Your task to perform on an android device: see creations saved in the google photos Image 0: 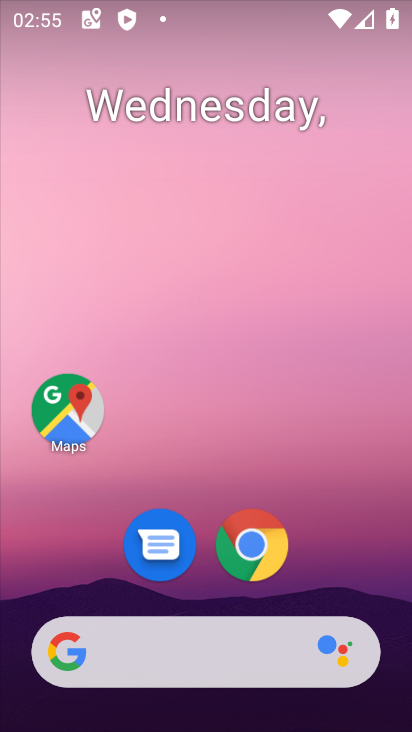
Step 0: press home button
Your task to perform on an android device: see creations saved in the google photos Image 1: 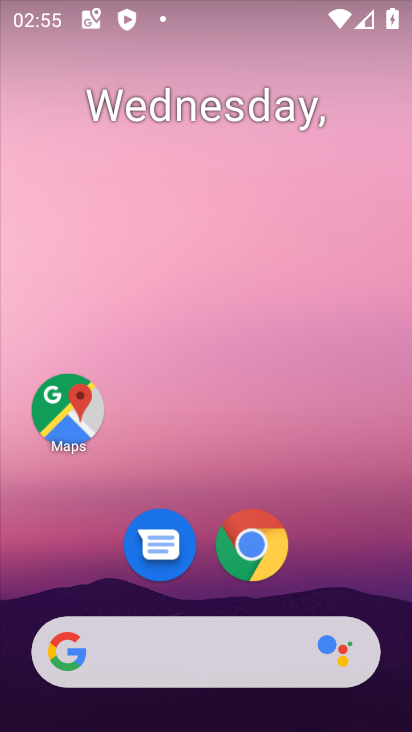
Step 1: drag from (190, 654) to (330, 127)
Your task to perform on an android device: see creations saved in the google photos Image 2: 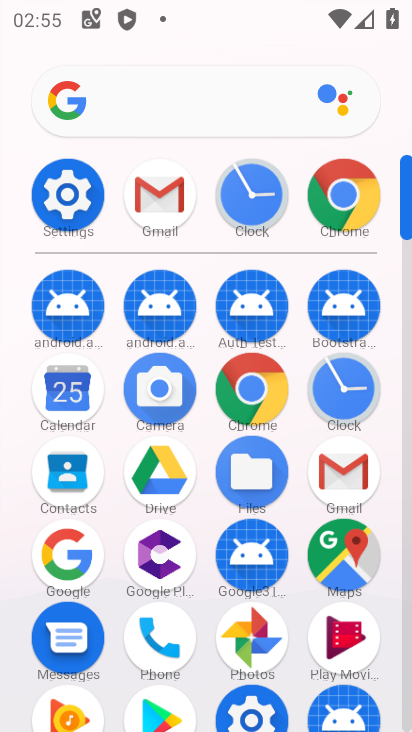
Step 2: drag from (209, 585) to (291, 310)
Your task to perform on an android device: see creations saved in the google photos Image 3: 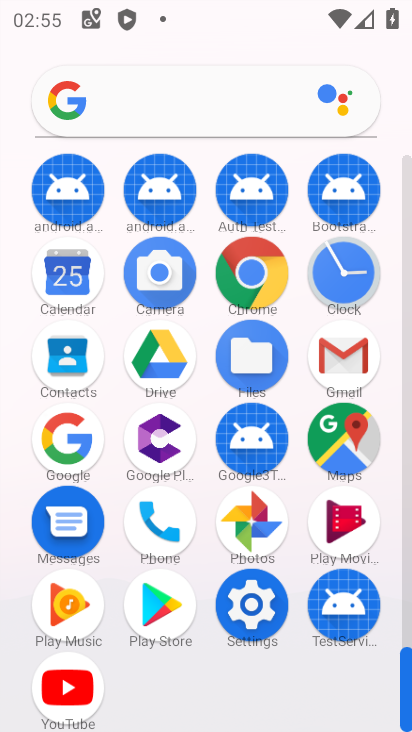
Step 3: click (251, 533)
Your task to perform on an android device: see creations saved in the google photos Image 4: 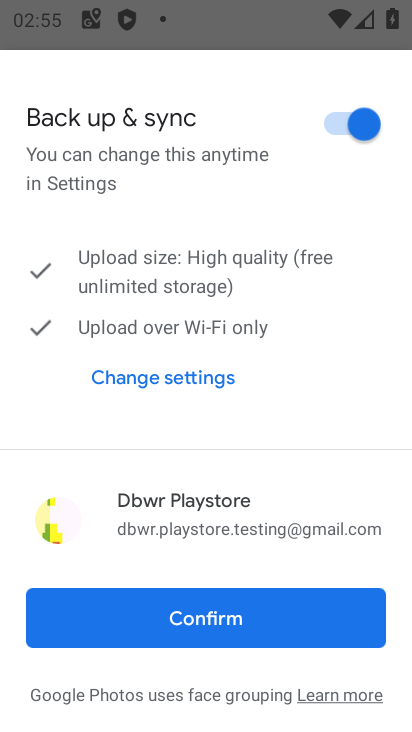
Step 4: click (197, 617)
Your task to perform on an android device: see creations saved in the google photos Image 5: 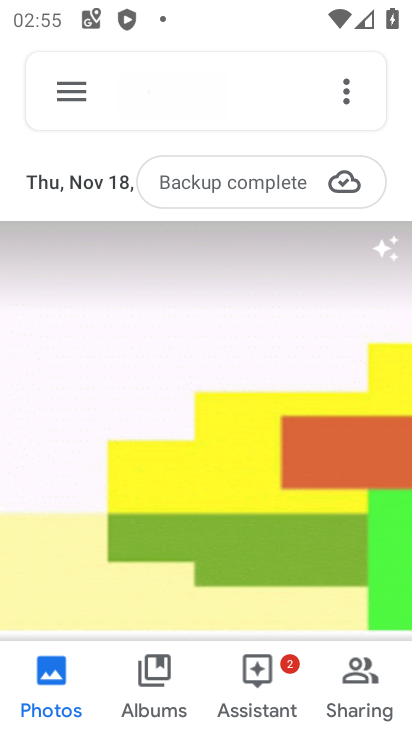
Step 5: click (164, 693)
Your task to perform on an android device: see creations saved in the google photos Image 6: 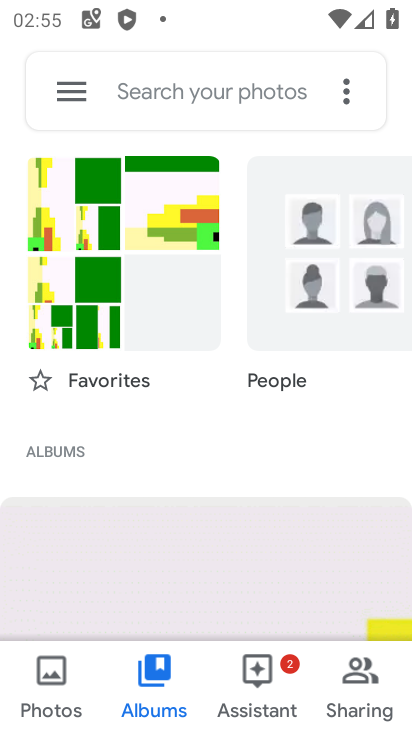
Step 6: click (163, 87)
Your task to perform on an android device: see creations saved in the google photos Image 7: 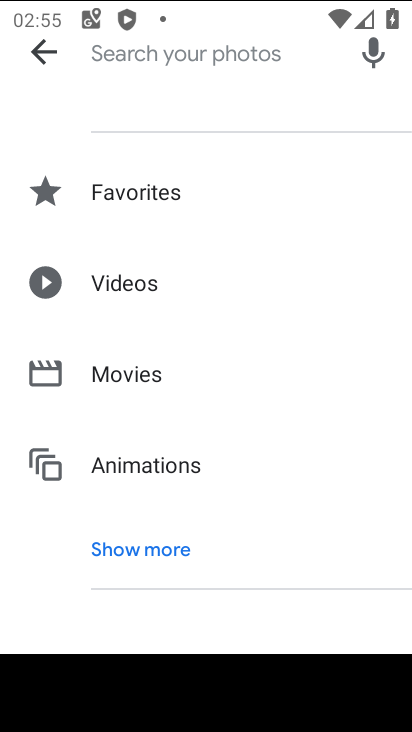
Step 7: click (134, 543)
Your task to perform on an android device: see creations saved in the google photos Image 8: 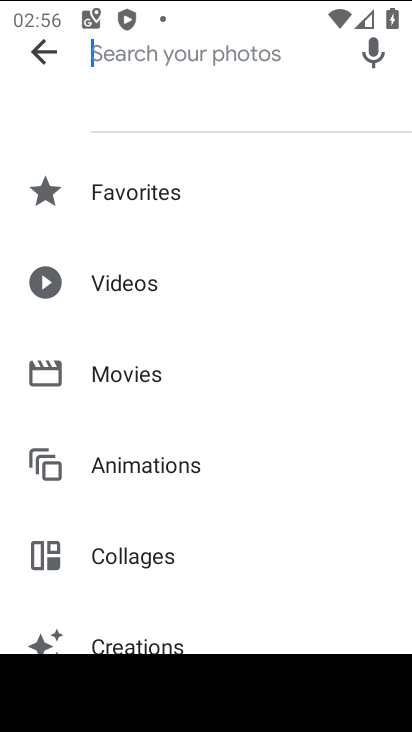
Step 8: drag from (185, 555) to (289, 276)
Your task to perform on an android device: see creations saved in the google photos Image 9: 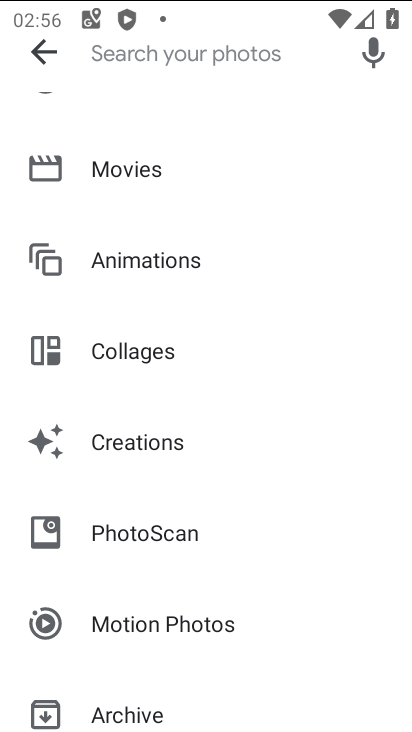
Step 9: click (150, 448)
Your task to perform on an android device: see creations saved in the google photos Image 10: 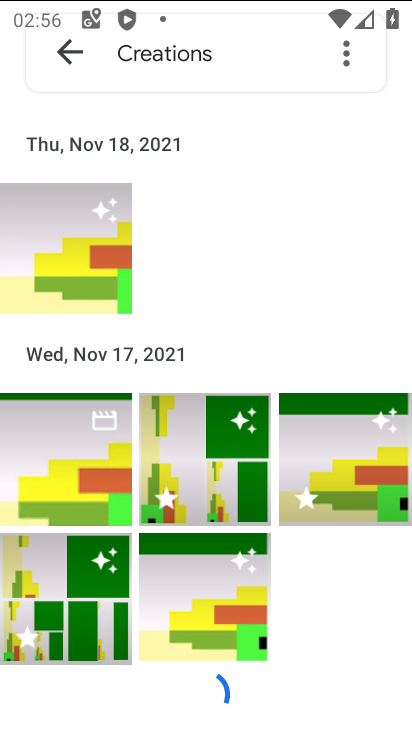
Step 10: task complete